Your task to perform on an android device: turn off priority inbox in the gmail app Image 0: 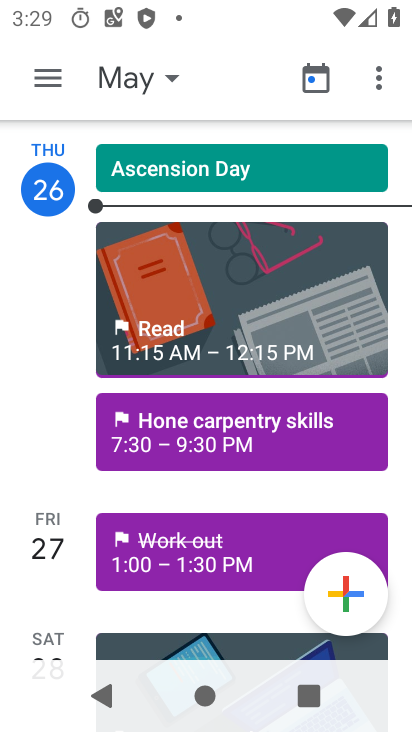
Step 0: press home button
Your task to perform on an android device: turn off priority inbox in the gmail app Image 1: 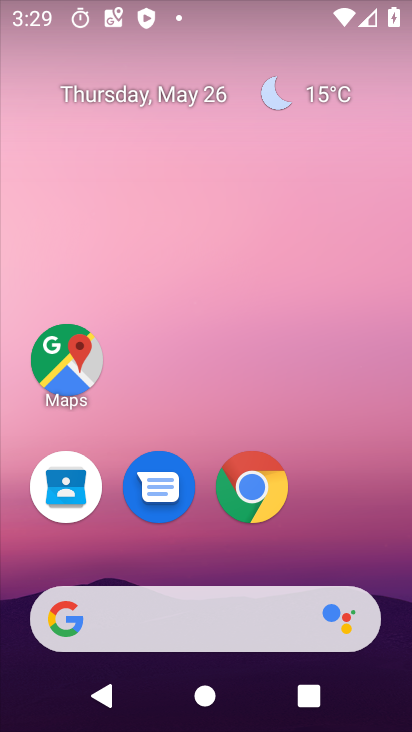
Step 1: drag from (216, 559) to (216, 99)
Your task to perform on an android device: turn off priority inbox in the gmail app Image 2: 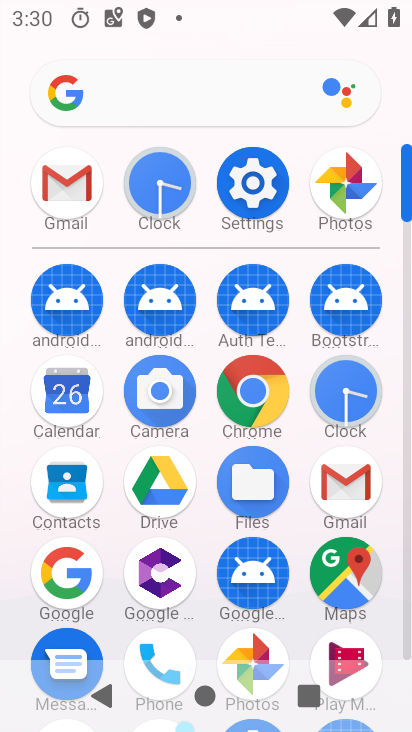
Step 2: click (335, 458)
Your task to perform on an android device: turn off priority inbox in the gmail app Image 3: 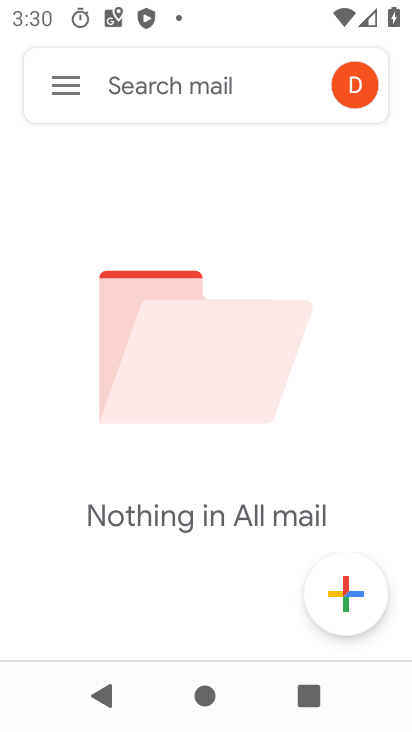
Step 3: click (60, 93)
Your task to perform on an android device: turn off priority inbox in the gmail app Image 4: 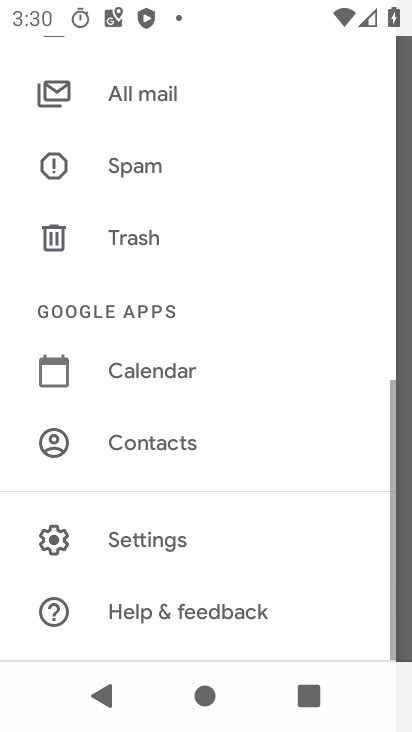
Step 4: drag from (173, 586) to (214, 339)
Your task to perform on an android device: turn off priority inbox in the gmail app Image 5: 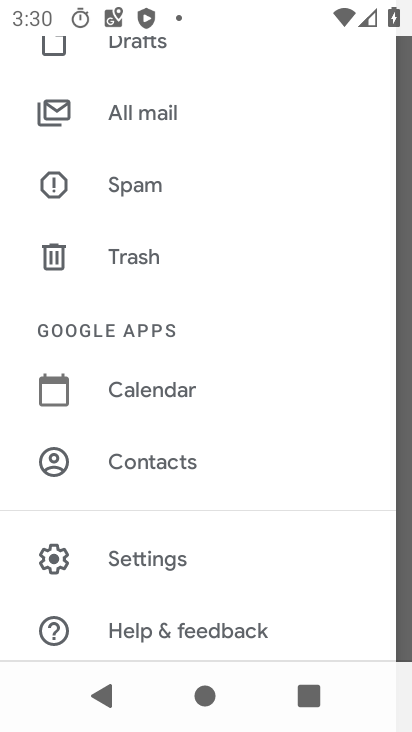
Step 5: click (176, 539)
Your task to perform on an android device: turn off priority inbox in the gmail app Image 6: 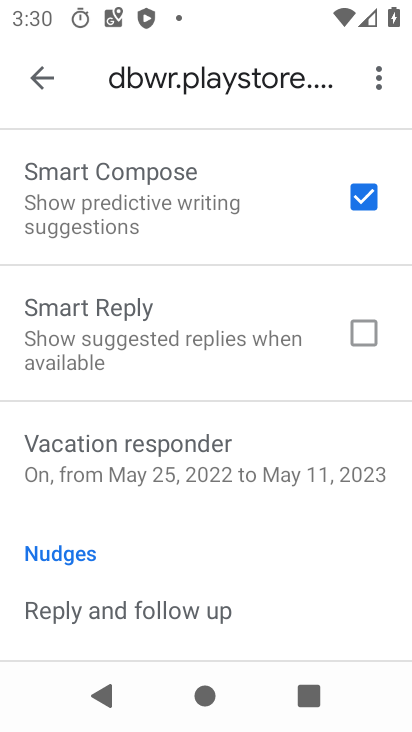
Step 6: drag from (227, 245) to (260, 580)
Your task to perform on an android device: turn off priority inbox in the gmail app Image 7: 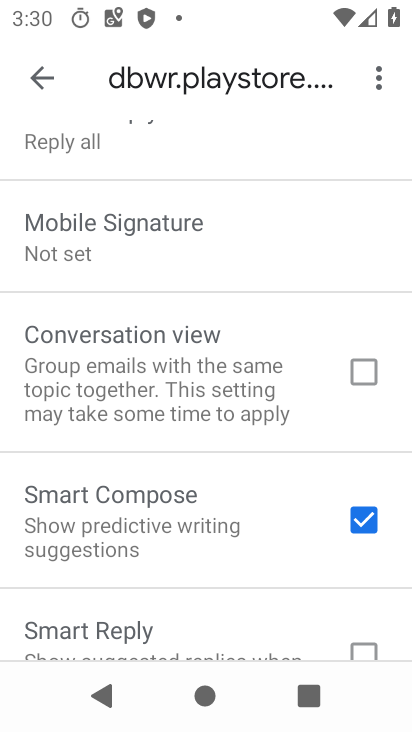
Step 7: drag from (197, 272) to (228, 555)
Your task to perform on an android device: turn off priority inbox in the gmail app Image 8: 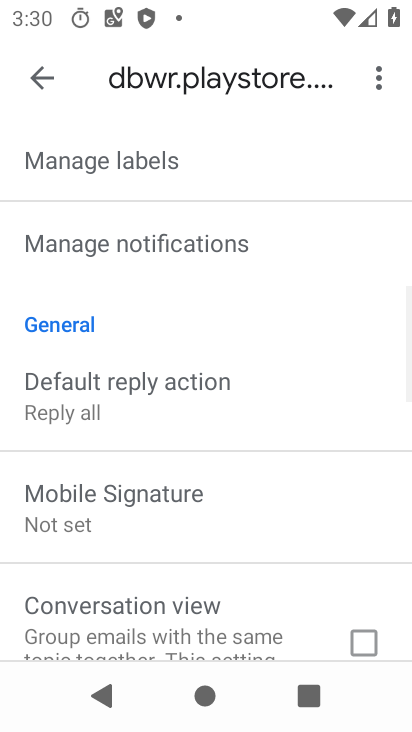
Step 8: drag from (170, 248) to (212, 521)
Your task to perform on an android device: turn off priority inbox in the gmail app Image 9: 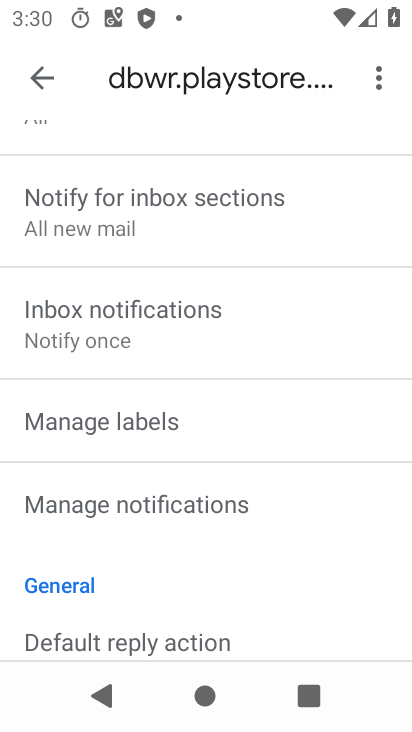
Step 9: drag from (211, 297) to (249, 554)
Your task to perform on an android device: turn off priority inbox in the gmail app Image 10: 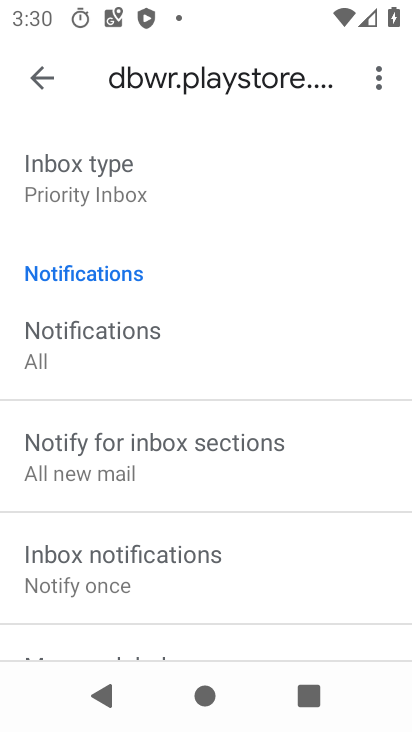
Step 10: drag from (223, 285) to (256, 498)
Your task to perform on an android device: turn off priority inbox in the gmail app Image 11: 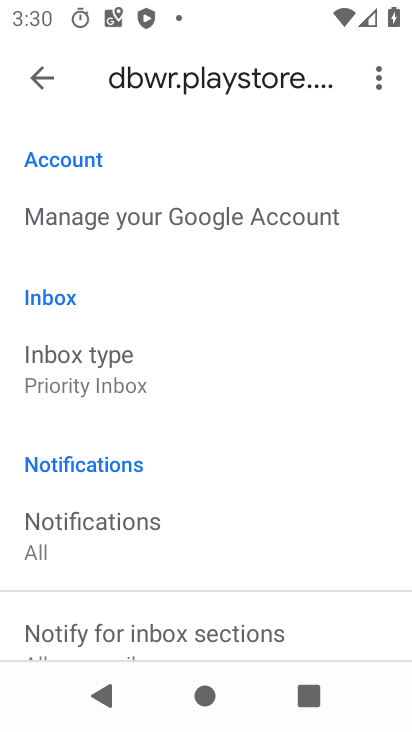
Step 11: click (160, 373)
Your task to perform on an android device: turn off priority inbox in the gmail app Image 12: 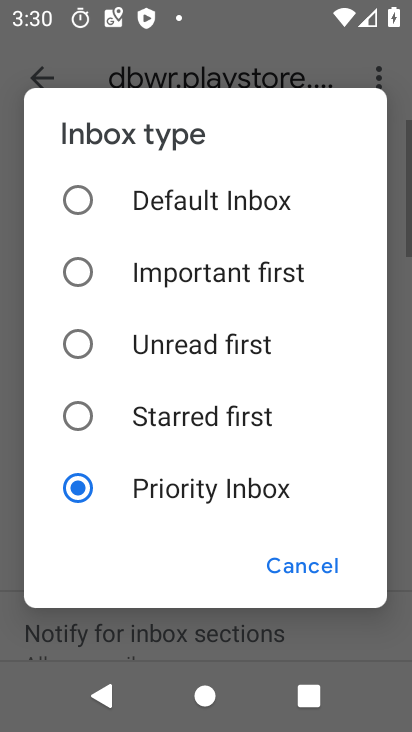
Step 12: click (175, 199)
Your task to perform on an android device: turn off priority inbox in the gmail app Image 13: 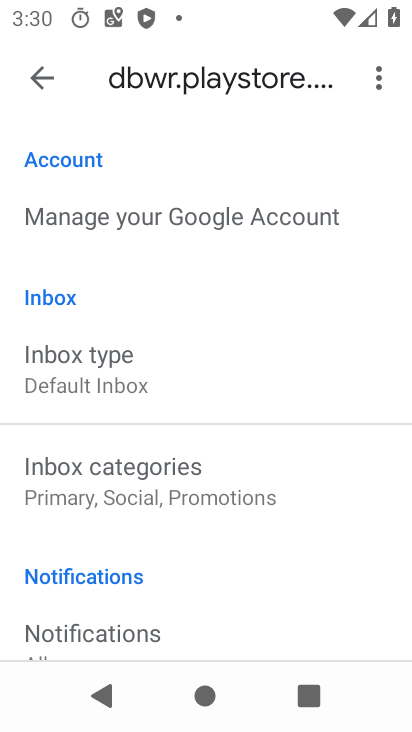
Step 13: task complete